Your task to perform on an android device: turn off location history Image 0: 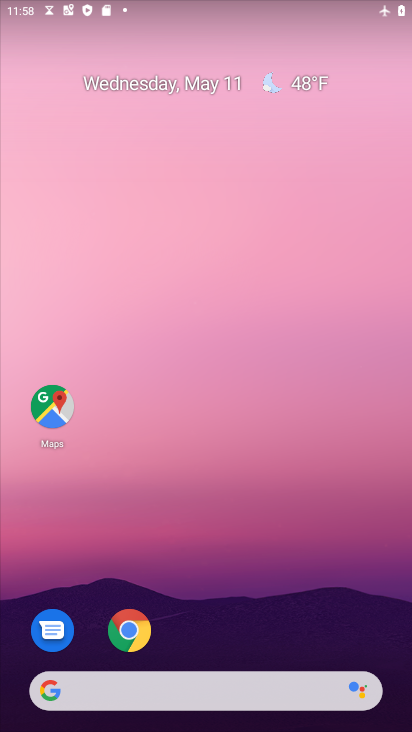
Step 0: drag from (215, 724) to (234, 268)
Your task to perform on an android device: turn off location history Image 1: 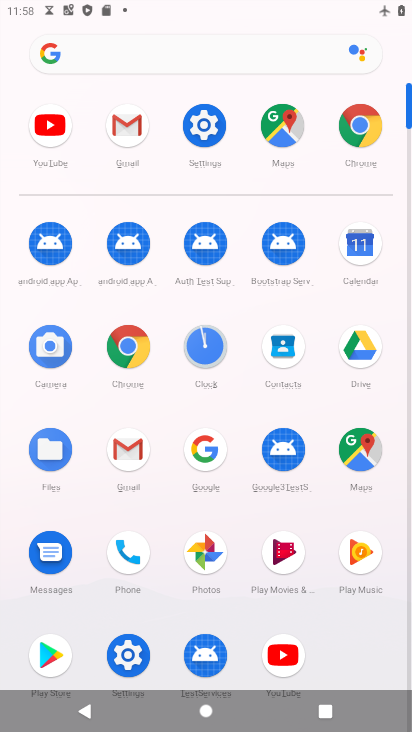
Step 1: click (203, 117)
Your task to perform on an android device: turn off location history Image 2: 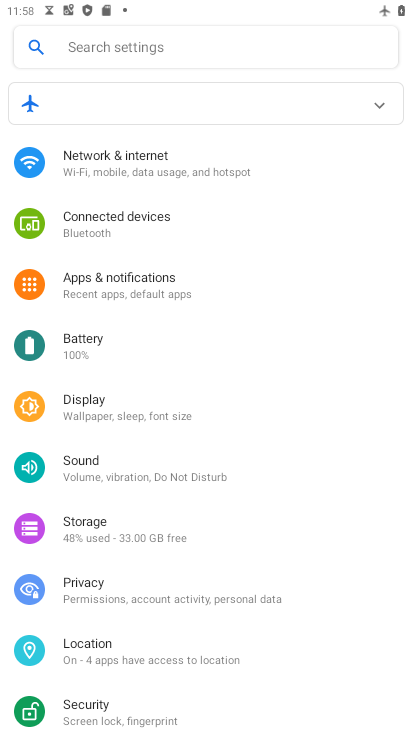
Step 2: click (115, 659)
Your task to perform on an android device: turn off location history Image 3: 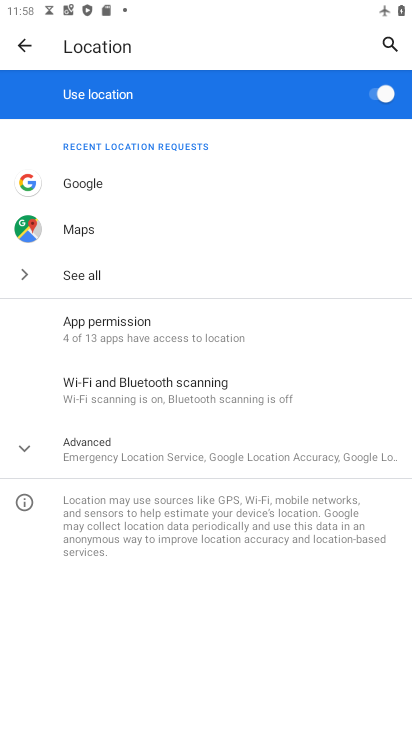
Step 3: click (97, 437)
Your task to perform on an android device: turn off location history Image 4: 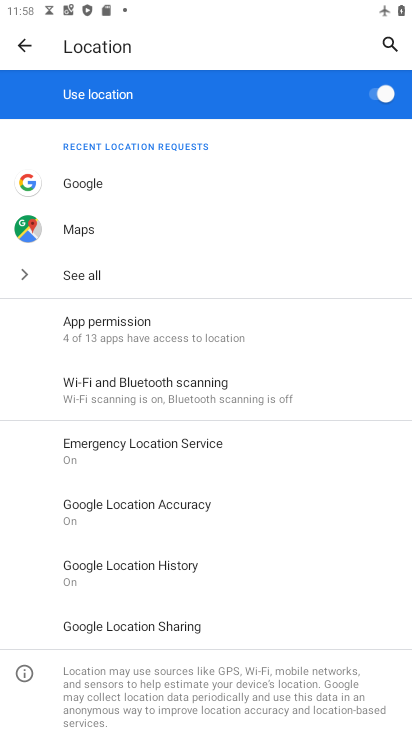
Step 4: click (147, 563)
Your task to perform on an android device: turn off location history Image 5: 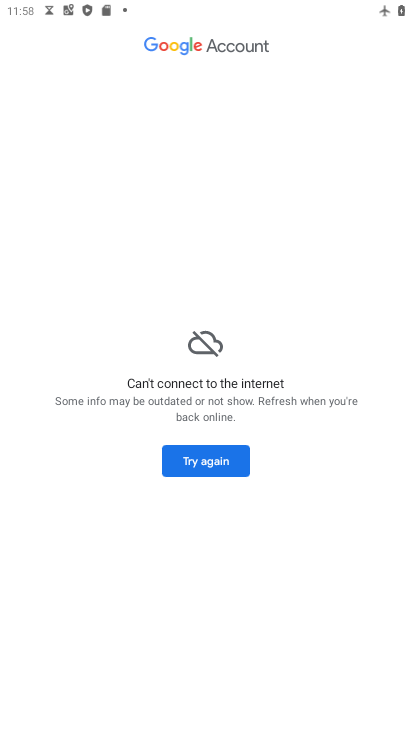
Step 5: task complete